Your task to perform on an android device: turn off smart reply in the gmail app Image 0: 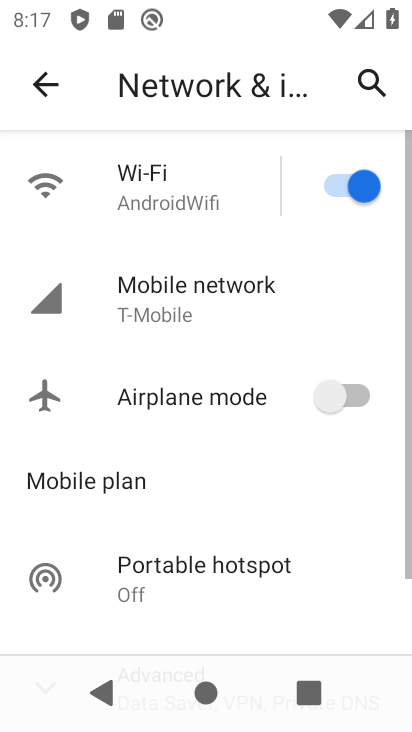
Step 0: click (385, 531)
Your task to perform on an android device: turn off smart reply in the gmail app Image 1: 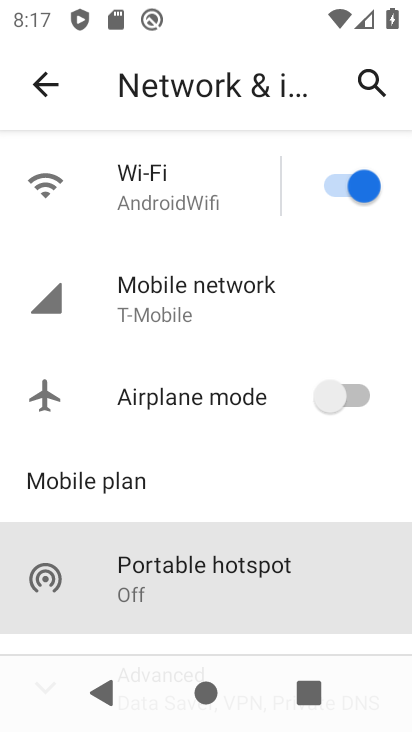
Step 1: press home button
Your task to perform on an android device: turn off smart reply in the gmail app Image 2: 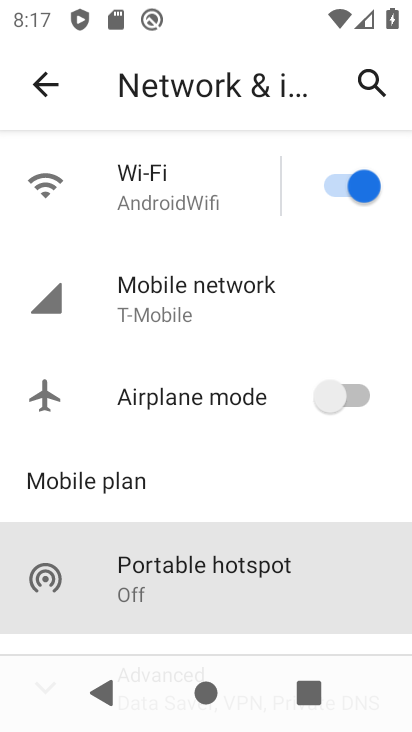
Step 2: drag from (404, 534) to (404, 589)
Your task to perform on an android device: turn off smart reply in the gmail app Image 3: 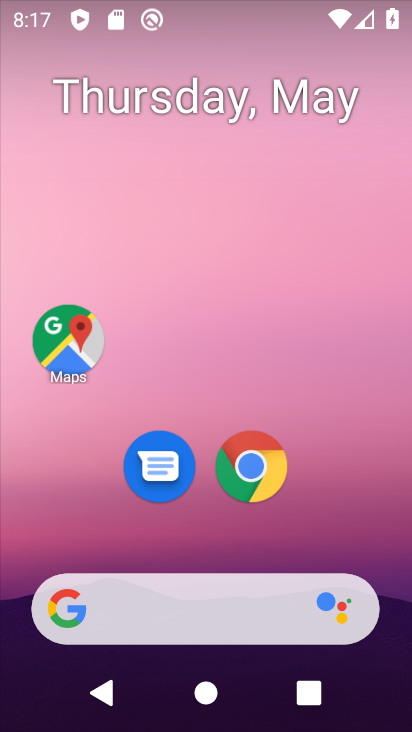
Step 3: drag from (385, 536) to (297, 137)
Your task to perform on an android device: turn off smart reply in the gmail app Image 4: 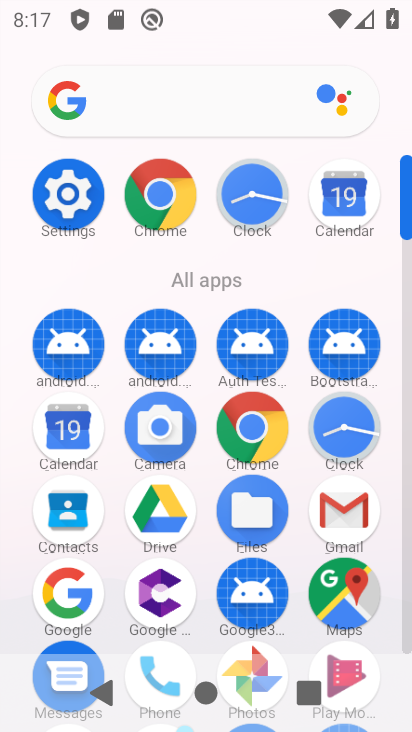
Step 4: click (342, 495)
Your task to perform on an android device: turn off smart reply in the gmail app Image 5: 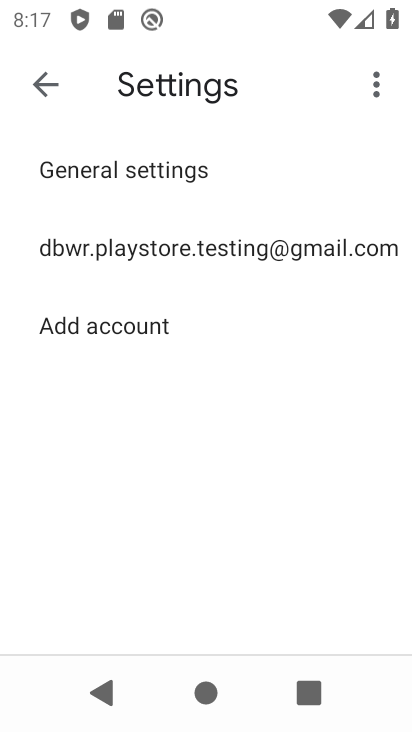
Step 5: click (283, 258)
Your task to perform on an android device: turn off smart reply in the gmail app Image 6: 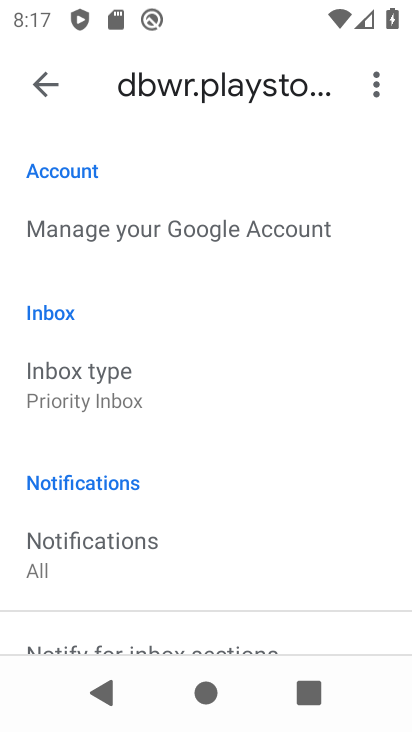
Step 6: drag from (291, 544) to (269, 176)
Your task to perform on an android device: turn off smart reply in the gmail app Image 7: 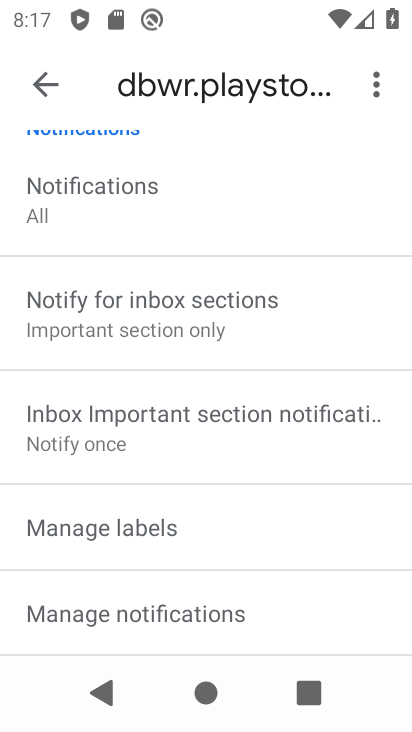
Step 7: drag from (298, 645) to (203, 148)
Your task to perform on an android device: turn off smart reply in the gmail app Image 8: 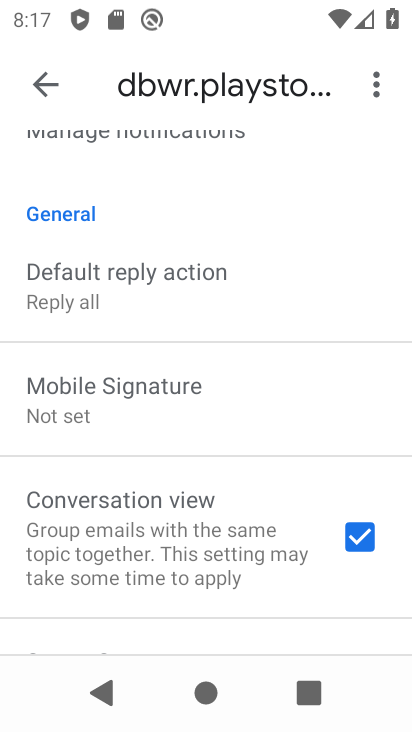
Step 8: drag from (269, 630) to (212, 195)
Your task to perform on an android device: turn off smart reply in the gmail app Image 9: 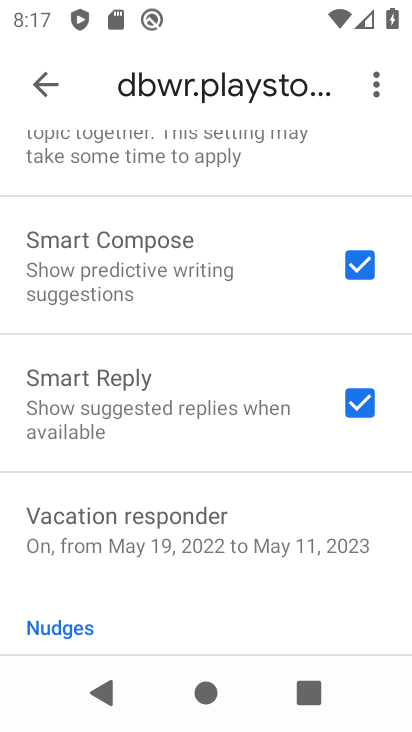
Step 9: click (347, 420)
Your task to perform on an android device: turn off smart reply in the gmail app Image 10: 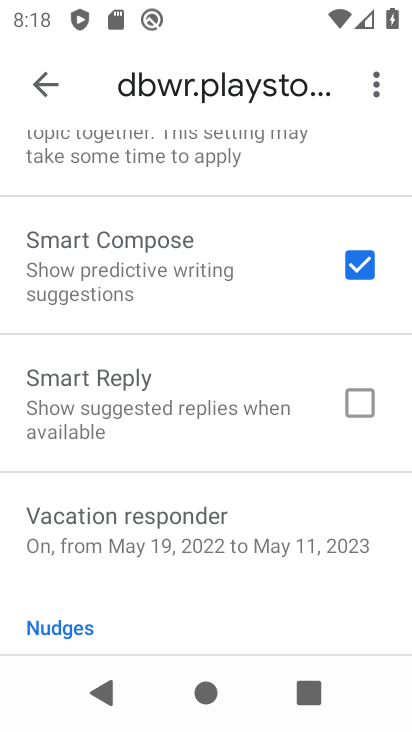
Step 10: task complete